Your task to perform on an android device: turn on javascript in the chrome app Image 0: 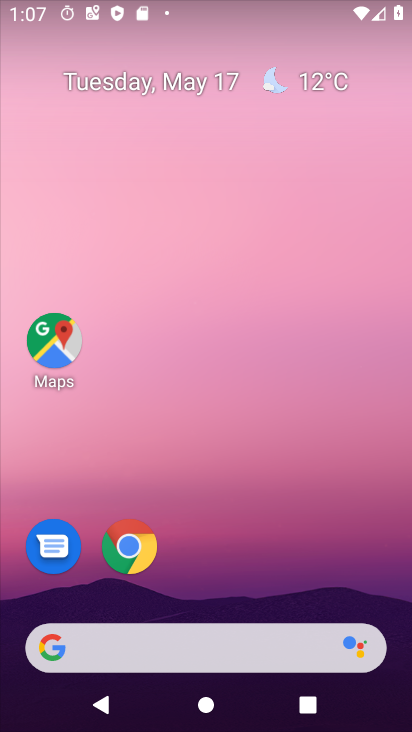
Step 0: click (120, 536)
Your task to perform on an android device: turn on javascript in the chrome app Image 1: 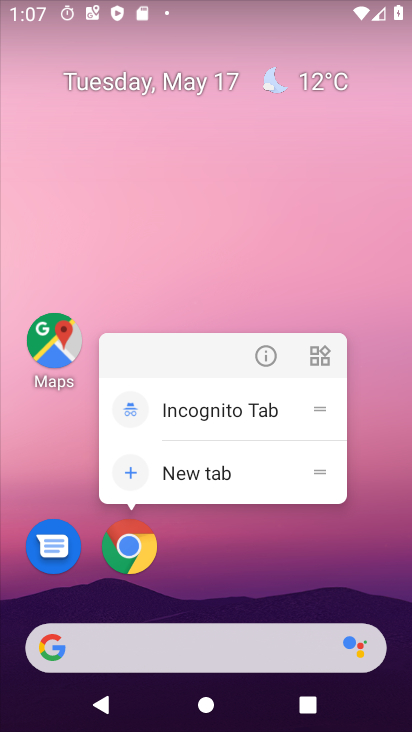
Step 1: click (131, 561)
Your task to perform on an android device: turn on javascript in the chrome app Image 2: 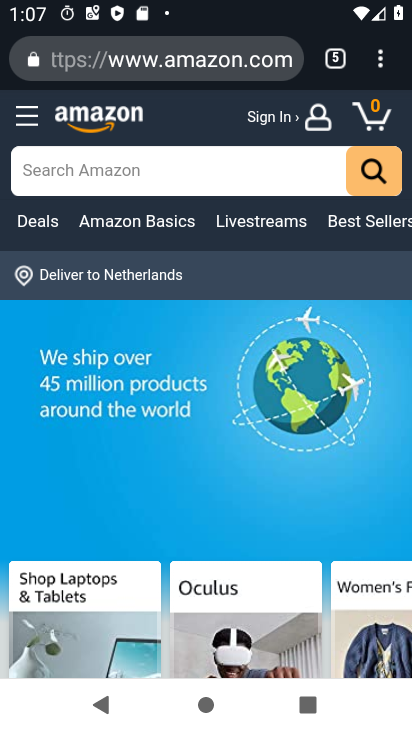
Step 2: drag from (381, 62) to (260, 578)
Your task to perform on an android device: turn on javascript in the chrome app Image 3: 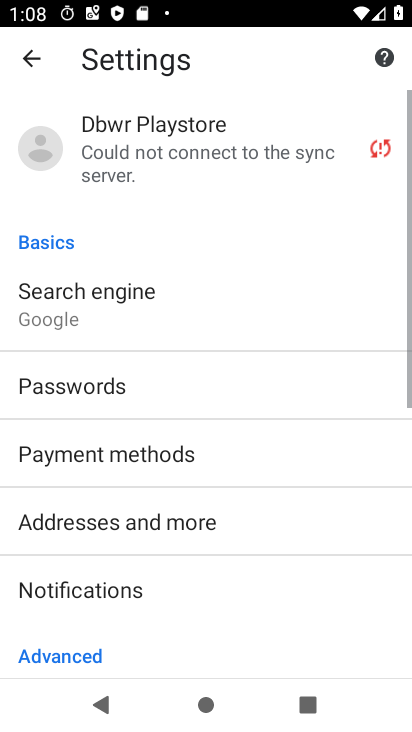
Step 3: drag from (194, 614) to (403, 38)
Your task to perform on an android device: turn on javascript in the chrome app Image 4: 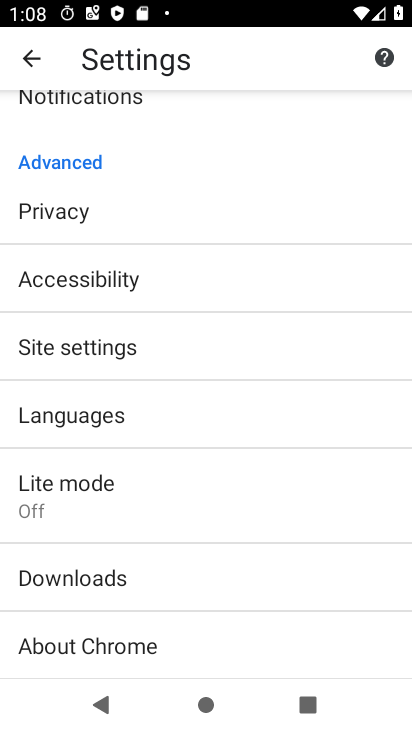
Step 4: click (85, 352)
Your task to perform on an android device: turn on javascript in the chrome app Image 5: 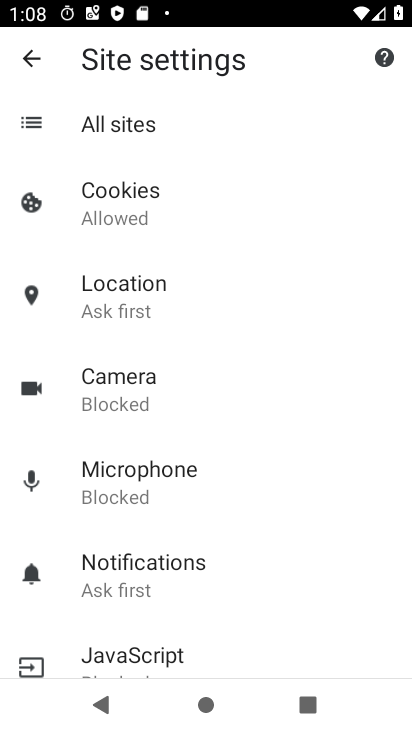
Step 5: drag from (231, 606) to (314, 234)
Your task to perform on an android device: turn on javascript in the chrome app Image 6: 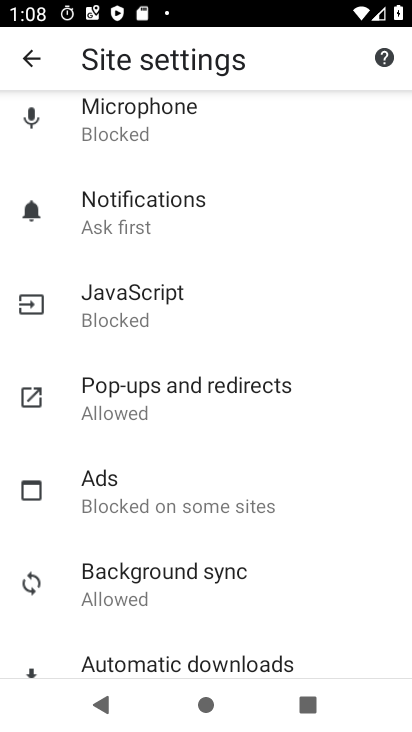
Step 6: click (134, 313)
Your task to perform on an android device: turn on javascript in the chrome app Image 7: 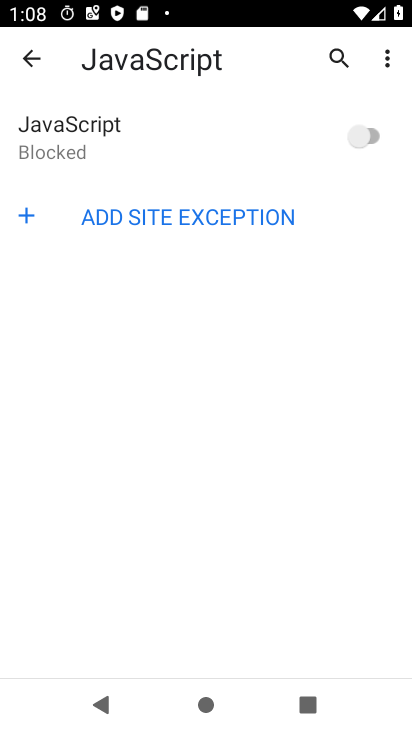
Step 7: click (374, 132)
Your task to perform on an android device: turn on javascript in the chrome app Image 8: 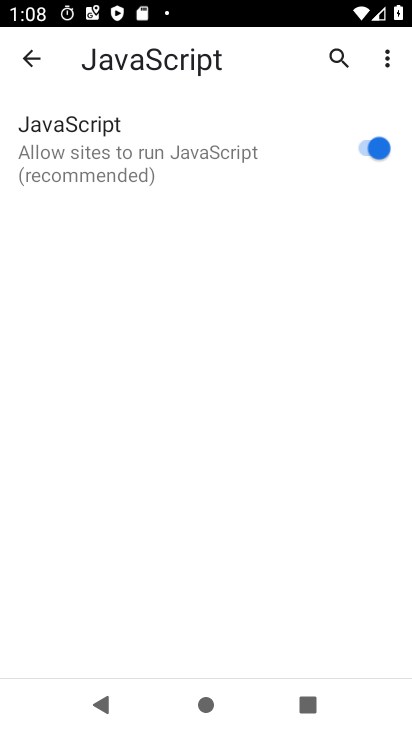
Step 8: task complete